Your task to perform on an android device: Is it going to rain this weekend? Image 0: 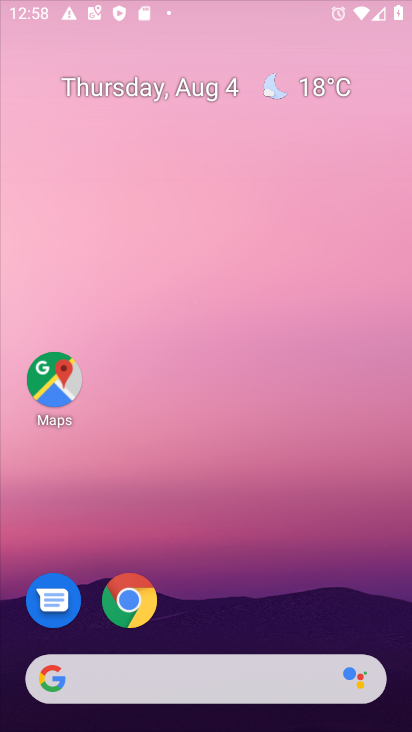
Step 0: press home button
Your task to perform on an android device: Is it going to rain this weekend? Image 1: 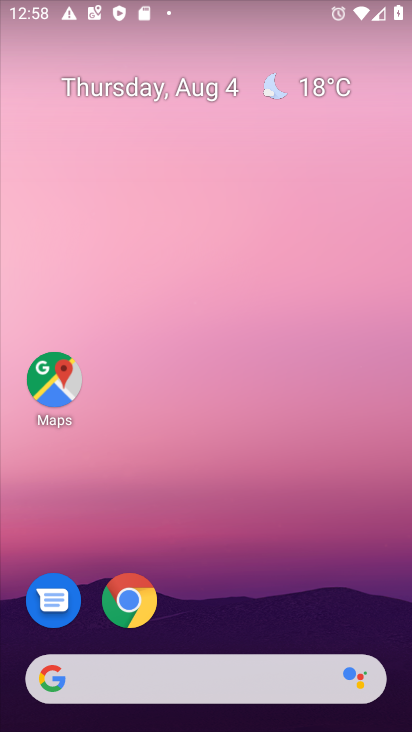
Step 1: click (120, 680)
Your task to perform on an android device: Is it going to rain this weekend? Image 2: 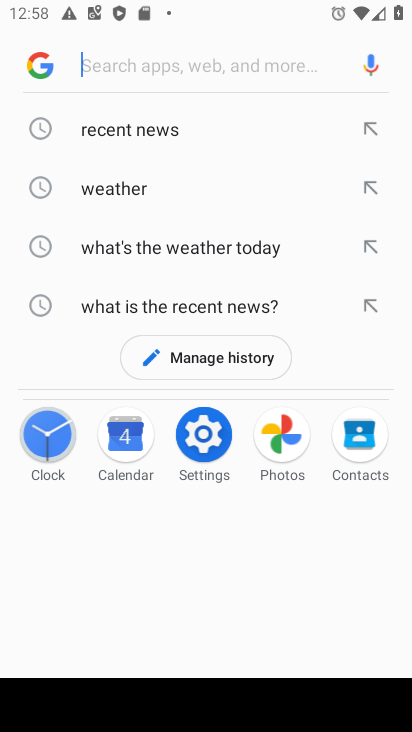
Step 2: click (128, 191)
Your task to perform on an android device: Is it going to rain this weekend? Image 3: 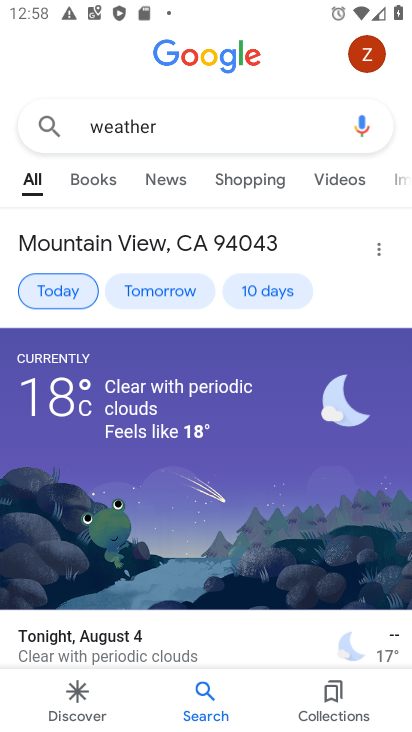
Step 3: click (264, 289)
Your task to perform on an android device: Is it going to rain this weekend? Image 4: 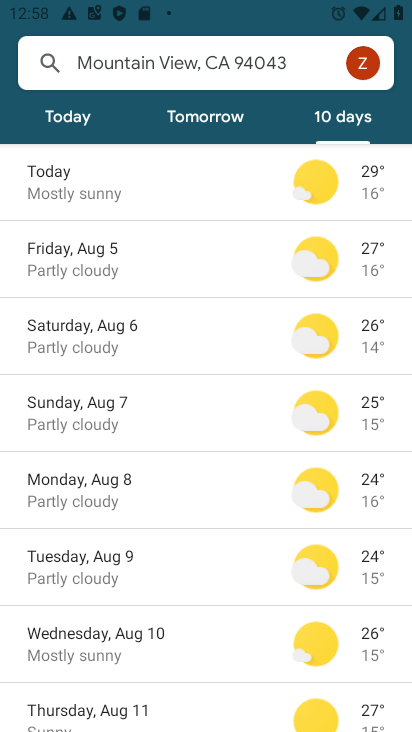
Step 4: click (77, 343)
Your task to perform on an android device: Is it going to rain this weekend? Image 5: 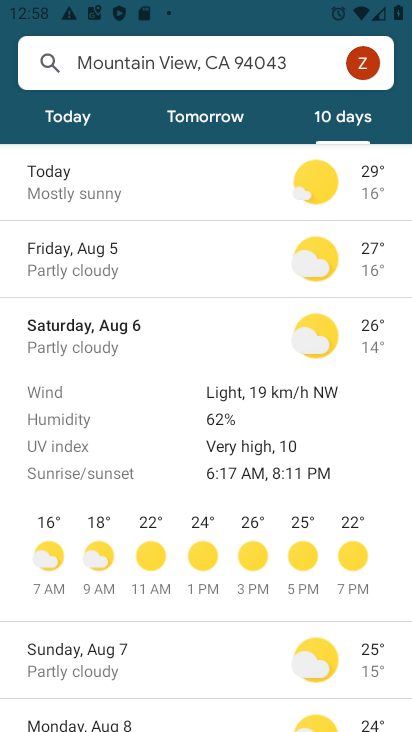
Step 5: task complete